Your task to perform on an android device: star an email in the gmail app Image 0: 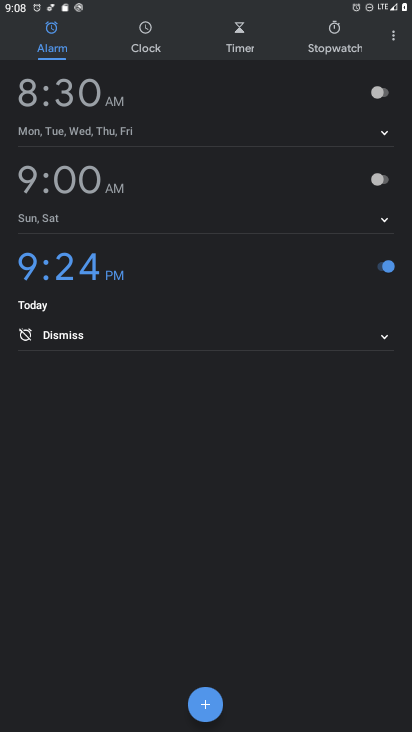
Step 0: press home button
Your task to perform on an android device: star an email in the gmail app Image 1: 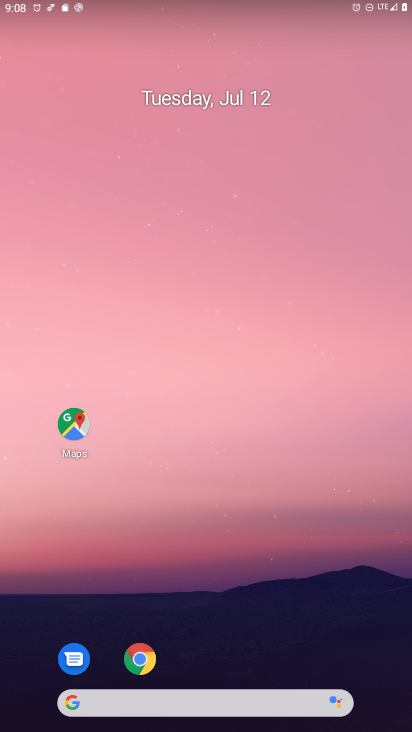
Step 1: drag from (169, 699) to (190, 233)
Your task to perform on an android device: star an email in the gmail app Image 2: 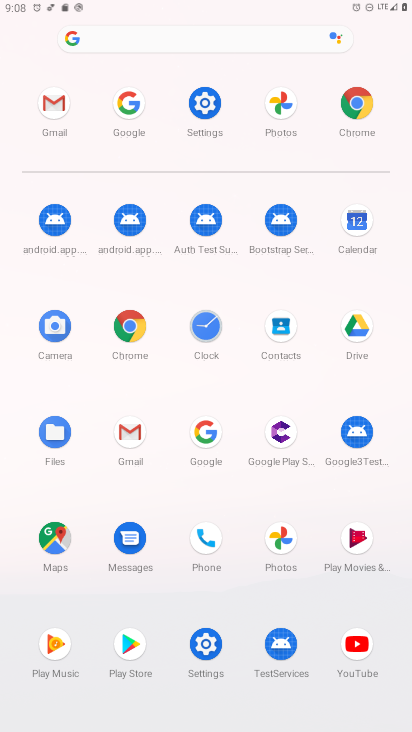
Step 2: click (52, 101)
Your task to perform on an android device: star an email in the gmail app Image 3: 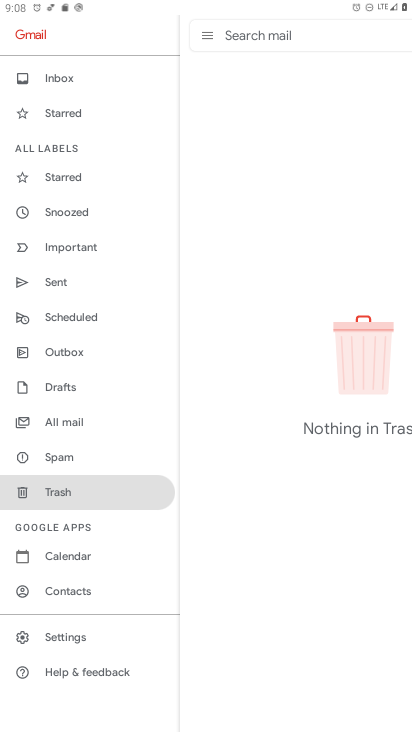
Step 3: click (61, 79)
Your task to perform on an android device: star an email in the gmail app Image 4: 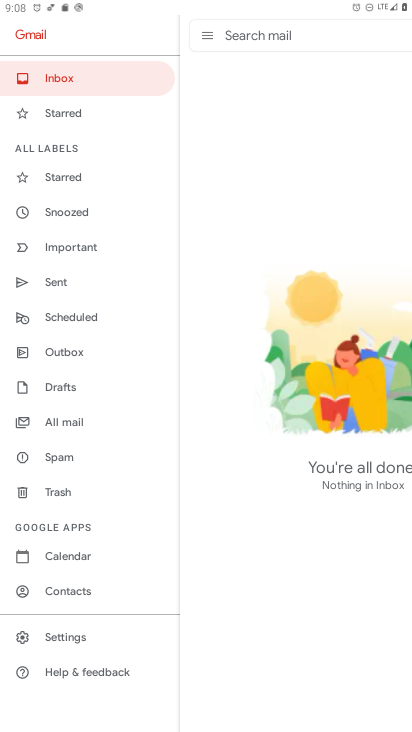
Step 4: click (61, 106)
Your task to perform on an android device: star an email in the gmail app Image 5: 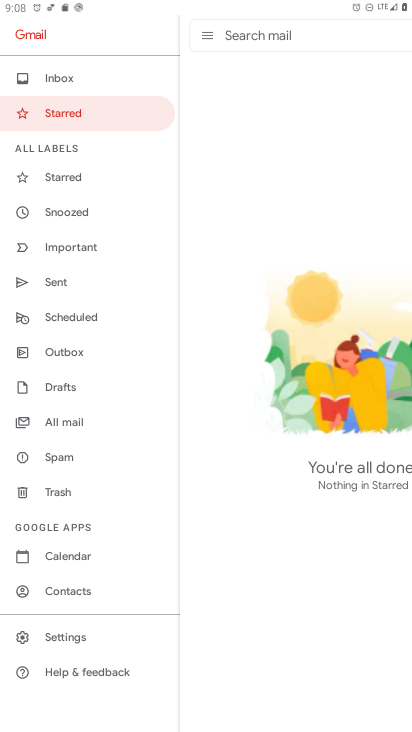
Step 5: click (66, 173)
Your task to perform on an android device: star an email in the gmail app Image 6: 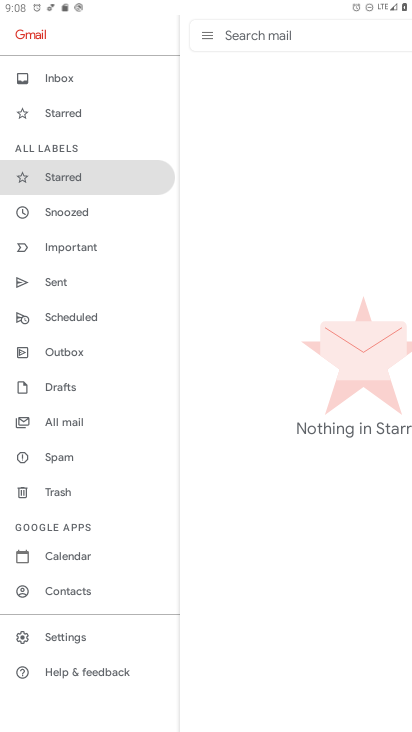
Step 6: click (70, 210)
Your task to perform on an android device: star an email in the gmail app Image 7: 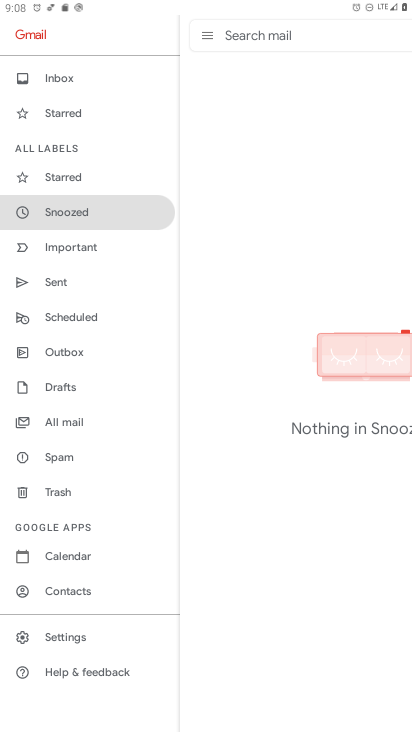
Step 7: click (78, 243)
Your task to perform on an android device: star an email in the gmail app Image 8: 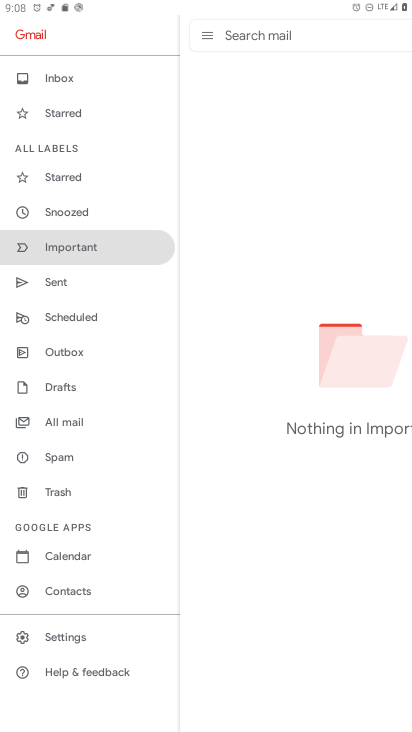
Step 8: click (60, 279)
Your task to perform on an android device: star an email in the gmail app Image 9: 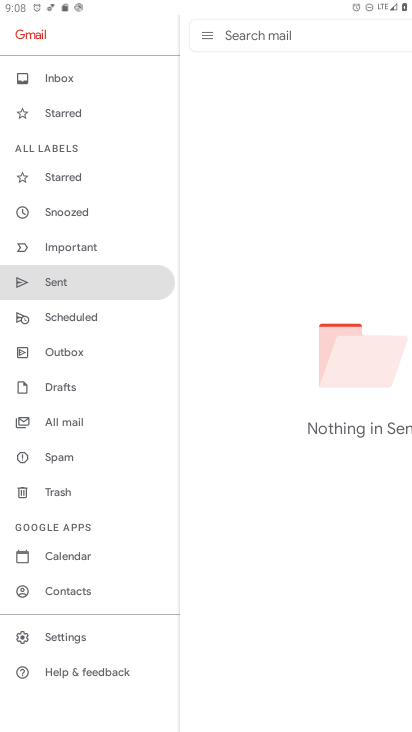
Step 9: click (67, 309)
Your task to perform on an android device: star an email in the gmail app Image 10: 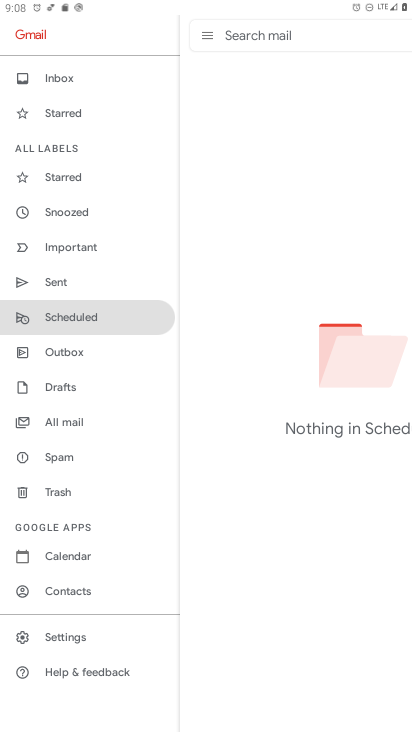
Step 10: click (62, 347)
Your task to perform on an android device: star an email in the gmail app Image 11: 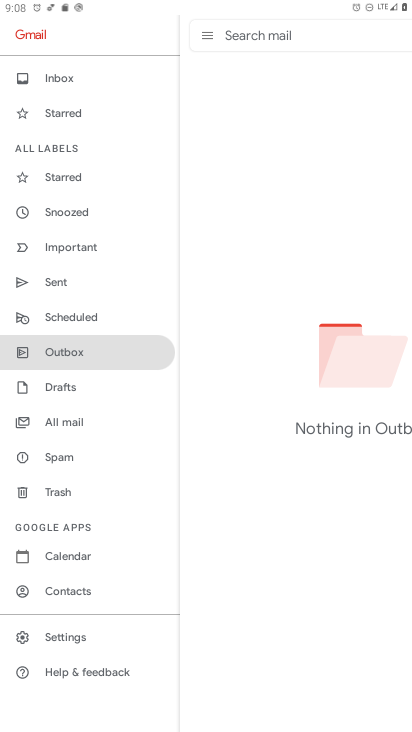
Step 11: click (63, 385)
Your task to perform on an android device: star an email in the gmail app Image 12: 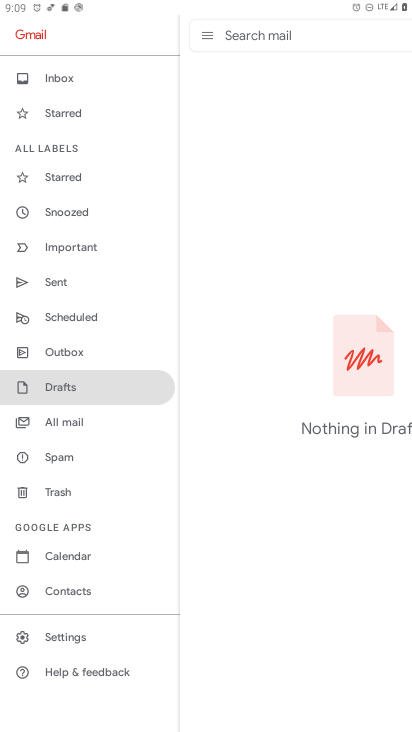
Step 12: click (59, 420)
Your task to perform on an android device: star an email in the gmail app Image 13: 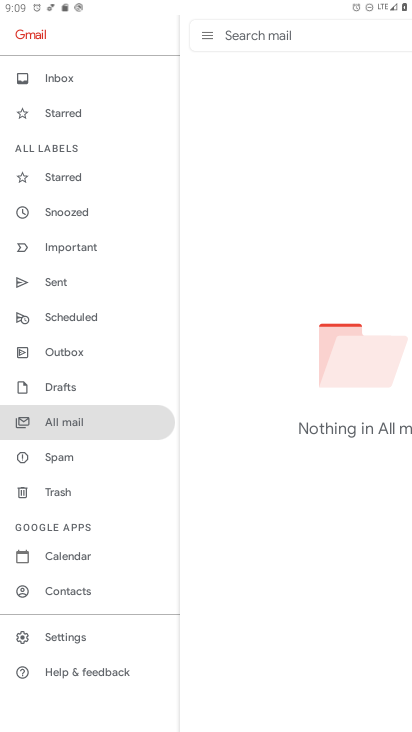
Step 13: click (49, 456)
Your task to perform on an android device: star an email in the gmail app Image 14: 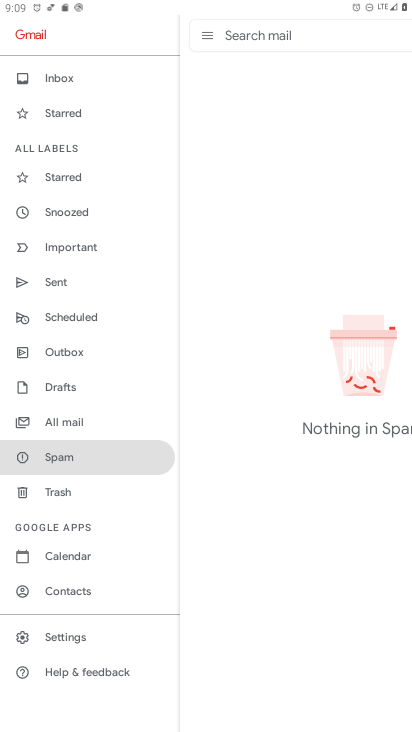
Step 14: click (58, 483)
Your task to perform on an android device: star an email in the gmail app Image 15: 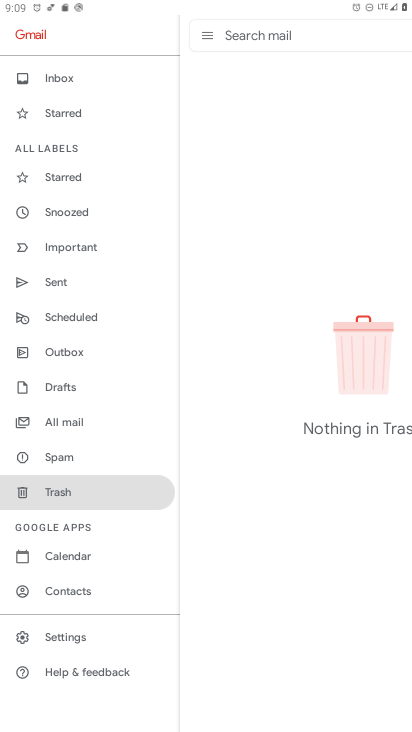
Step 15: task complete